Your task to perform on an android device: Search for flights from Seoul to Mexico city Image 0: 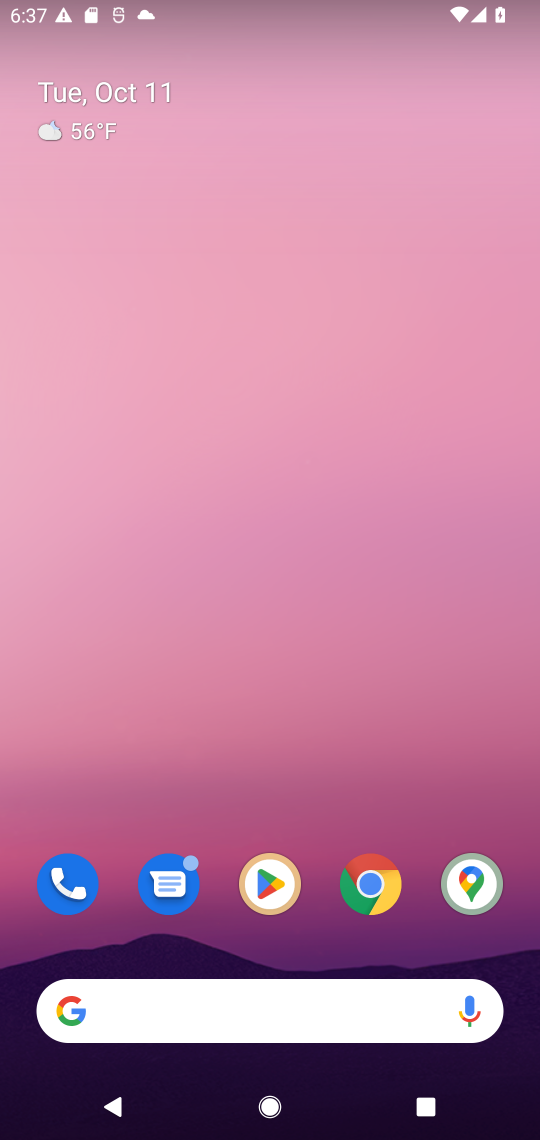
Step 0: drag from (304, 934) to (382, 142)
Your task to perform on an android device: Search for flights from Seoul to Mexico city Image 1: 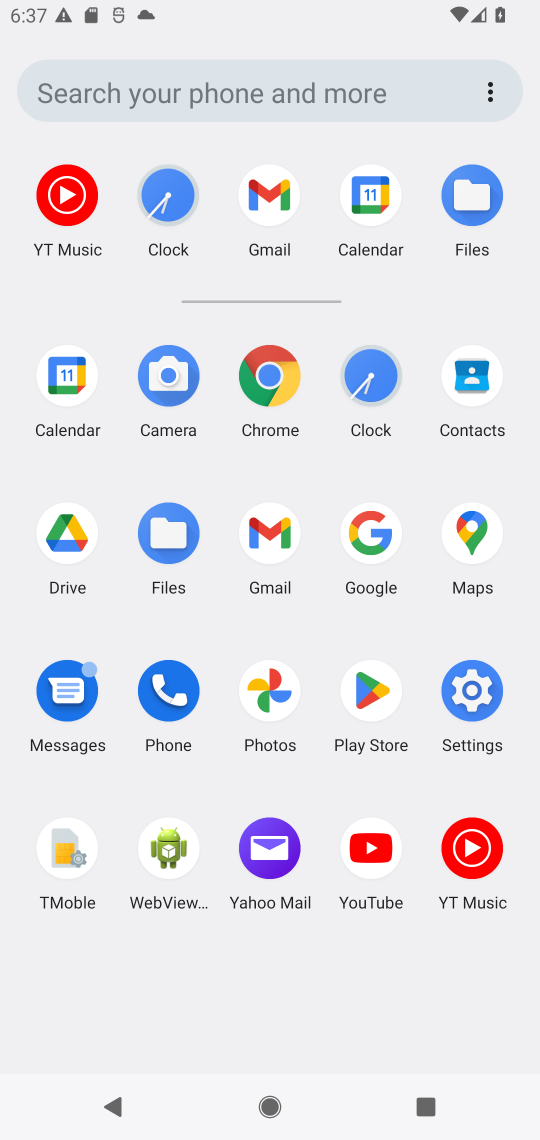
Step 1: click (280, 370)
Your task to perform on an android device: Search for flights from Seoul to Mexico city Image 2: 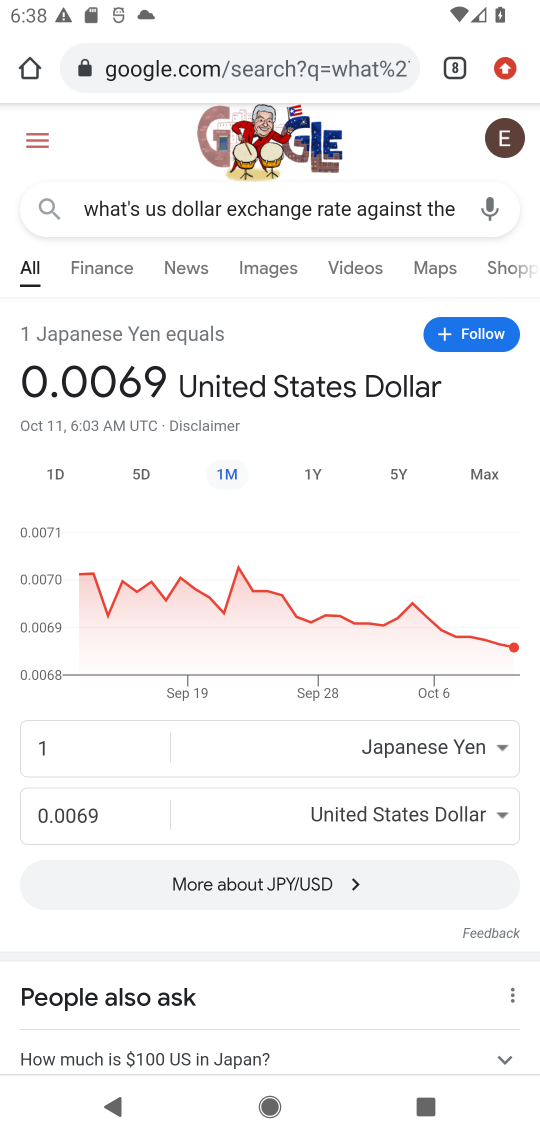
Step 2: click (306, 208)
Your task to perform on an android device: Search for flights from Seoul to Mexico city Image 3: 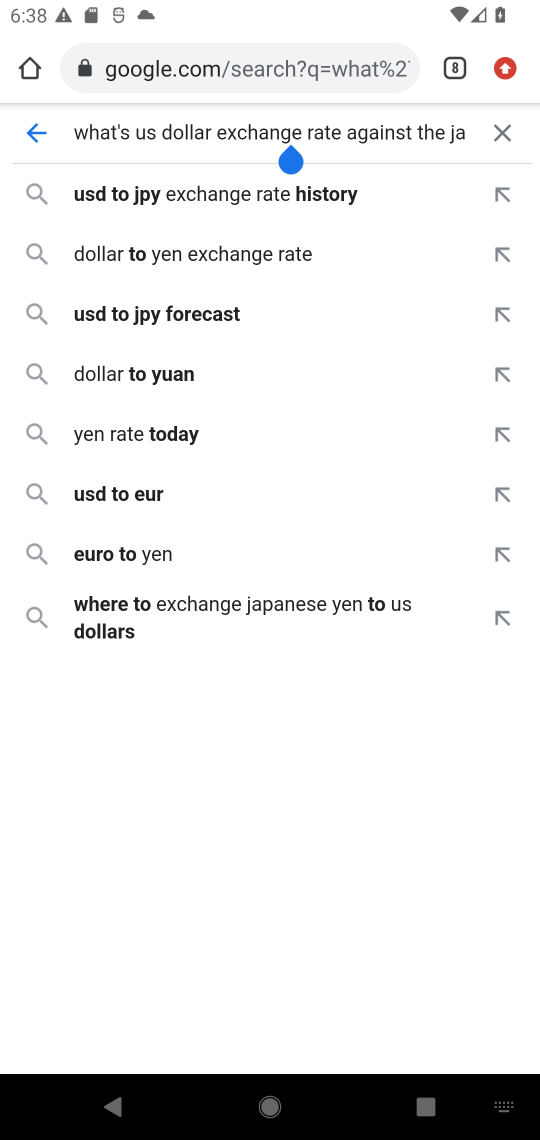
Step 3: click (499, 125)
Your task to perform on an android device: Search for flights from Seoul to Mexico city Image 4: 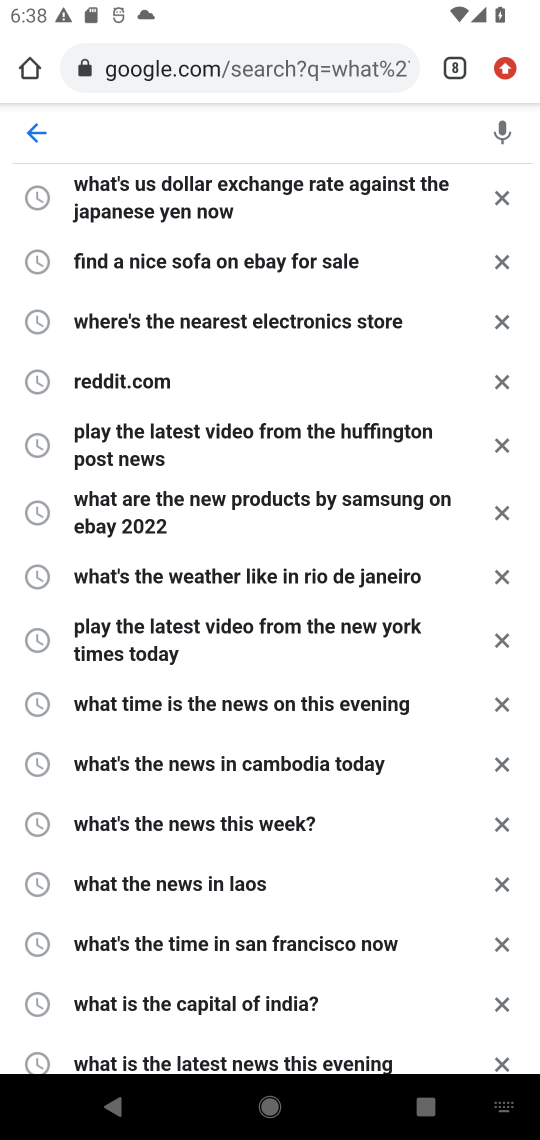
Step 4: type "Search for flights from Seoul to Mexico city"
Your task to perform on an android device: Search for flights from Seoul to Mexico city Image 5: 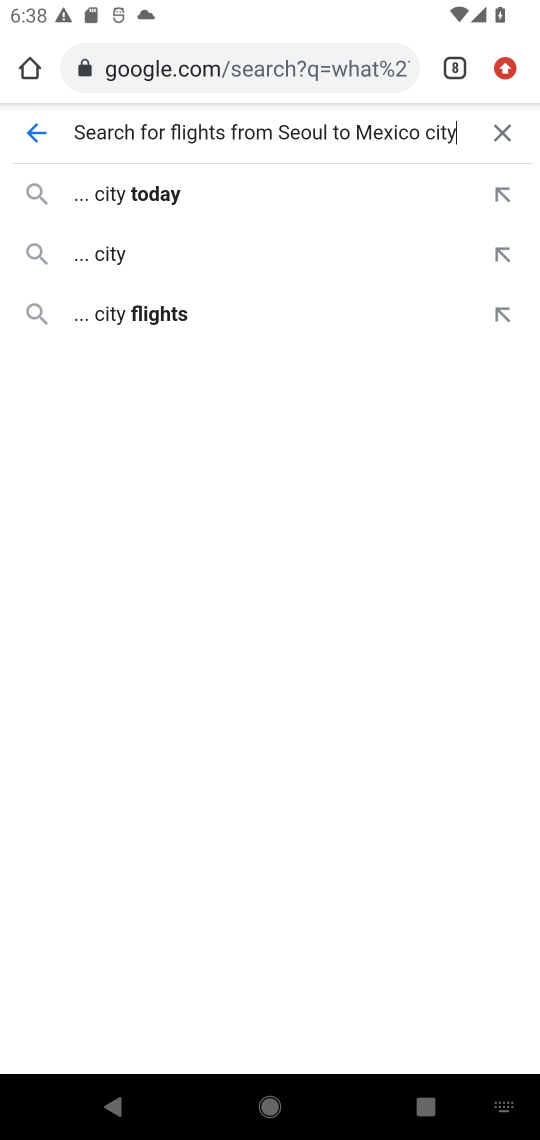
Step 5: click (152, 201)
Your task to perform on an android device: Search for flights from Seoul to Mexico city Image 6: 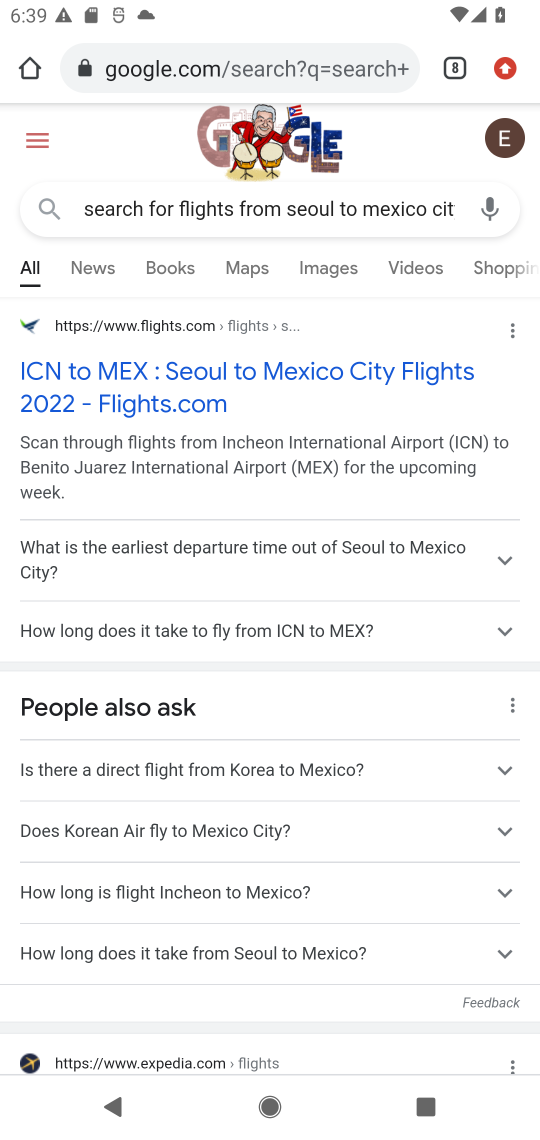
Step 6: task complete